Your task to perform on an android device: Open Google Chrome and open the bookmarks view Image 0: 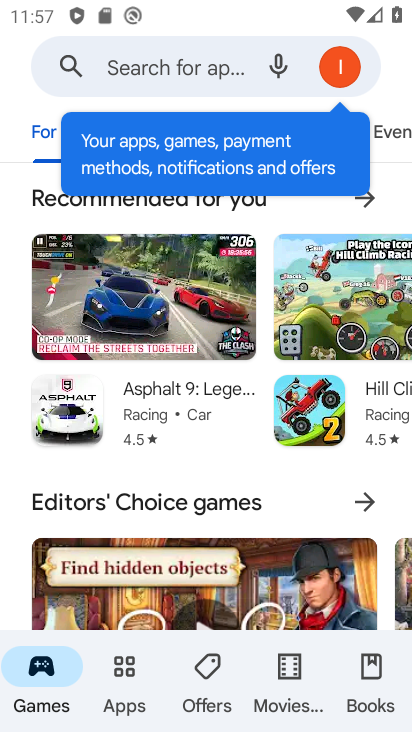
Step 0: press home button
Your task to perform on an android device: Open Google Chrome and open the bookmarks view Image 1: 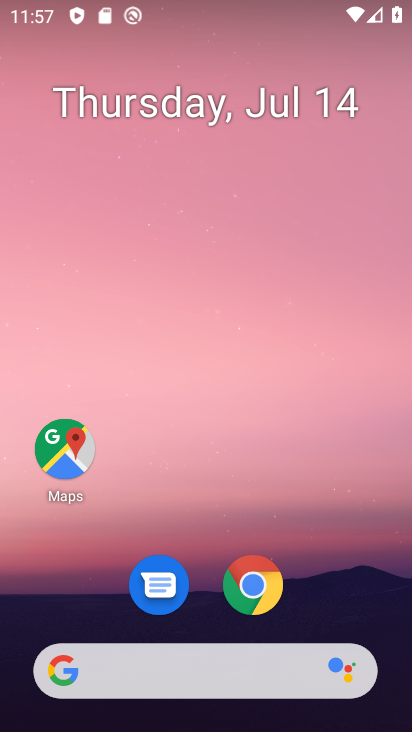
Step 1: click (268, 605)
Your task to perform on an android device: Open Google Chrome and open the bookmarks view Image 2: 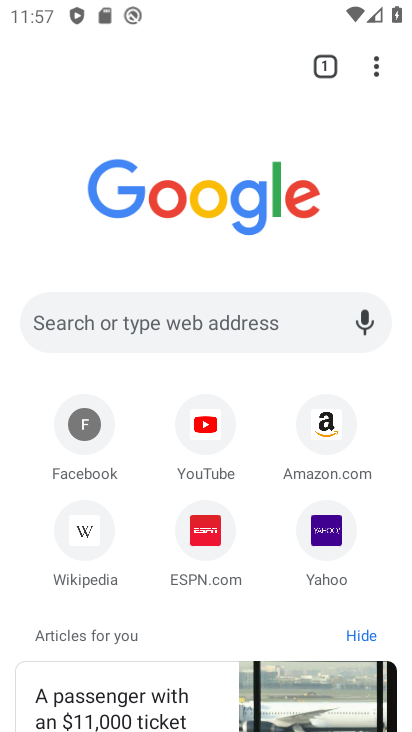
Step 2: click (374, 72)
Your task to perform on an android device: Open Google Chrome and open the bookmarks view Image 3: 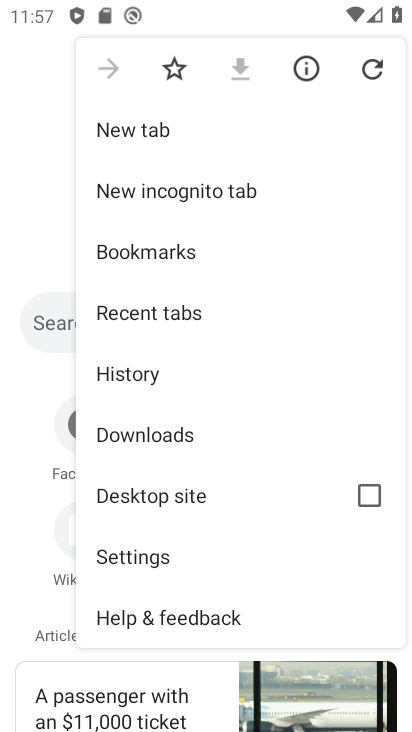
Step 3: click (191, 246)
Your task to perform on an android device: Open Google Chrome and open the bookmarks view Image 4: 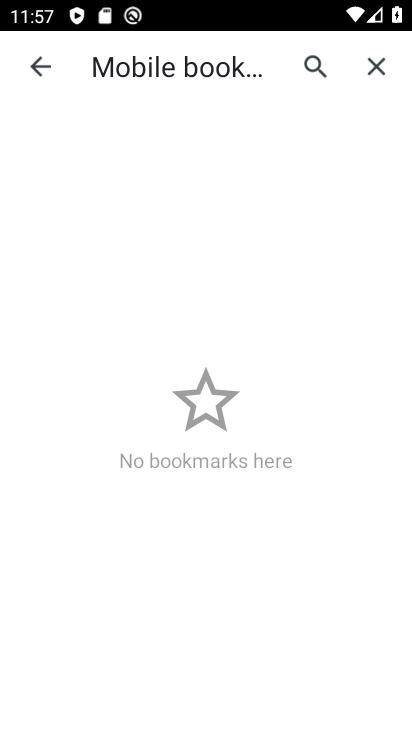
Step 4: task complete